Your task to perform on an android device: Add "razer naga" to the cart on amazon, then select checkout. Image 0: 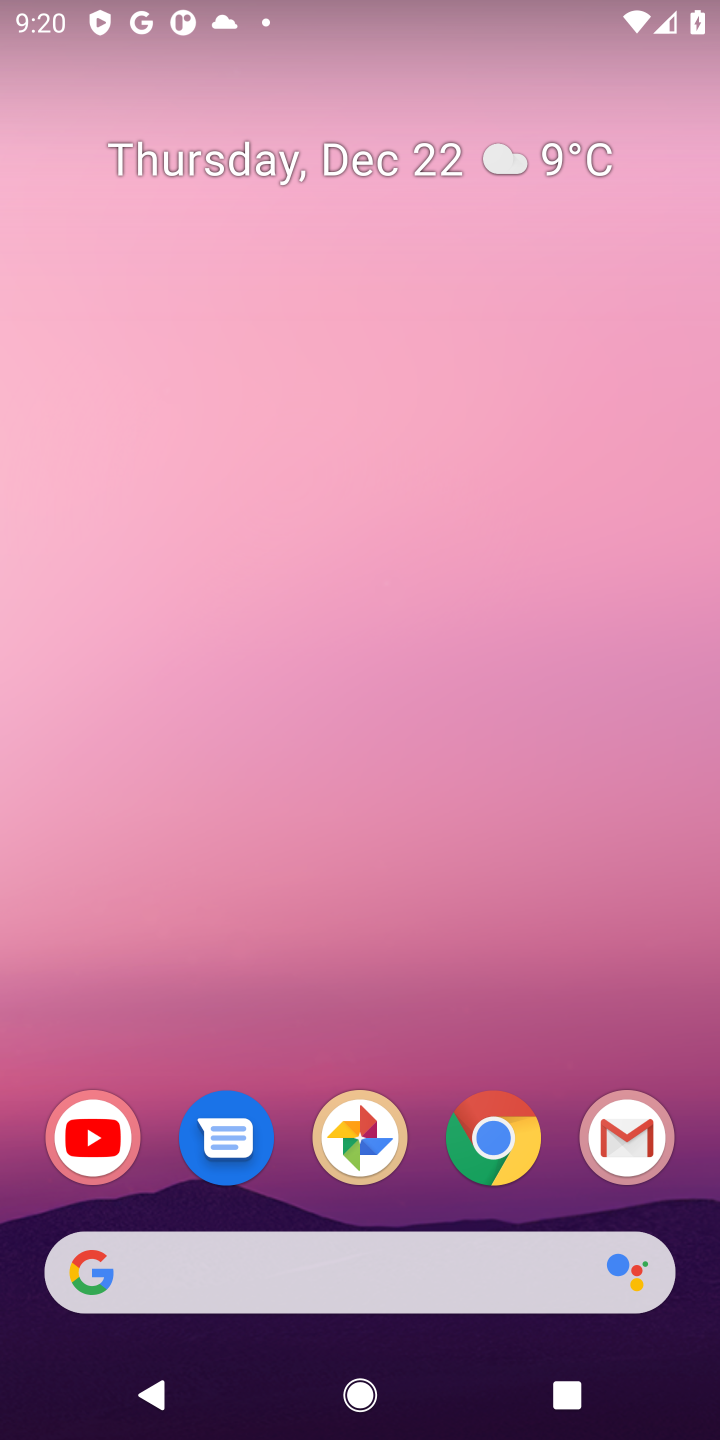
Step 0: click (507, 1147)
Your task to perform on an android device: Add "razer naga" to the cart on amazon, then select checkout. Image 1: 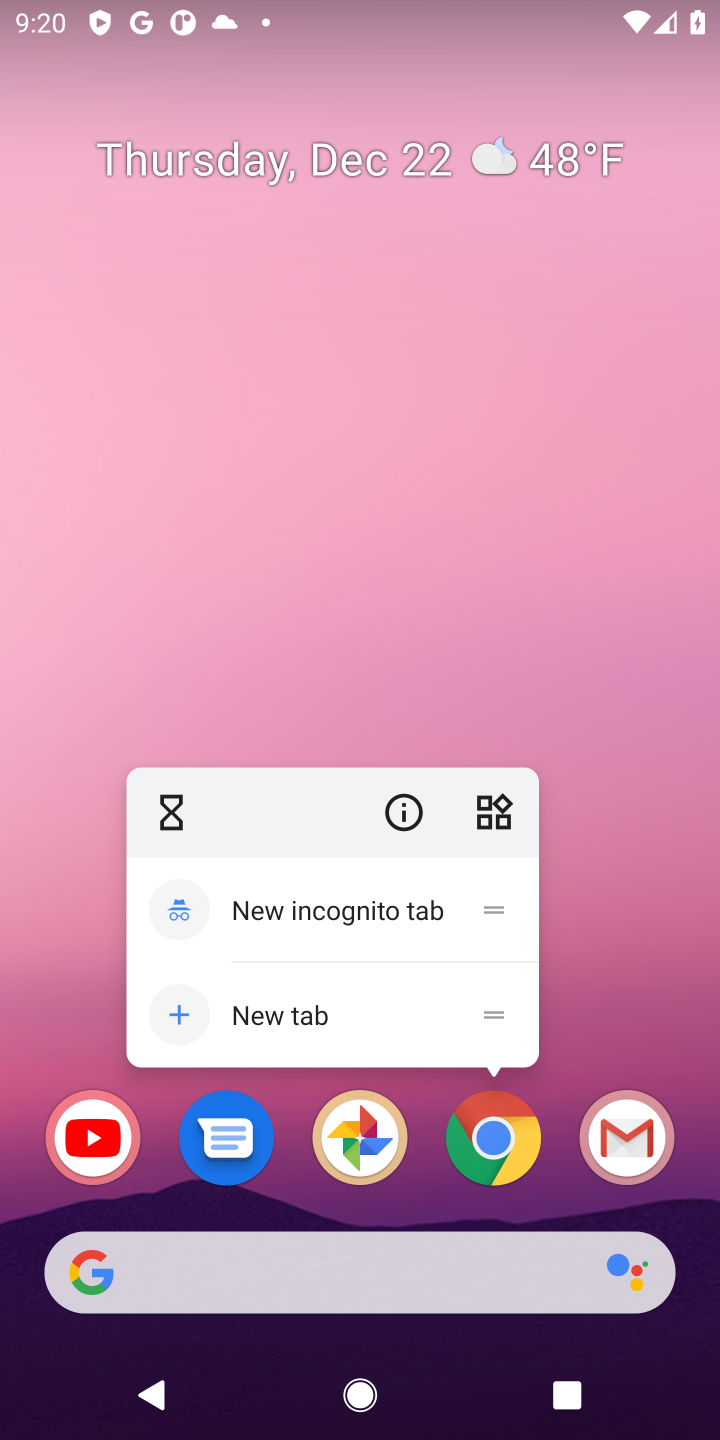
Step 1: click (507, 1147)
Your task to perform on an android device: Add "razer naga" to the cart on amazon, then select checkout. Image 2: 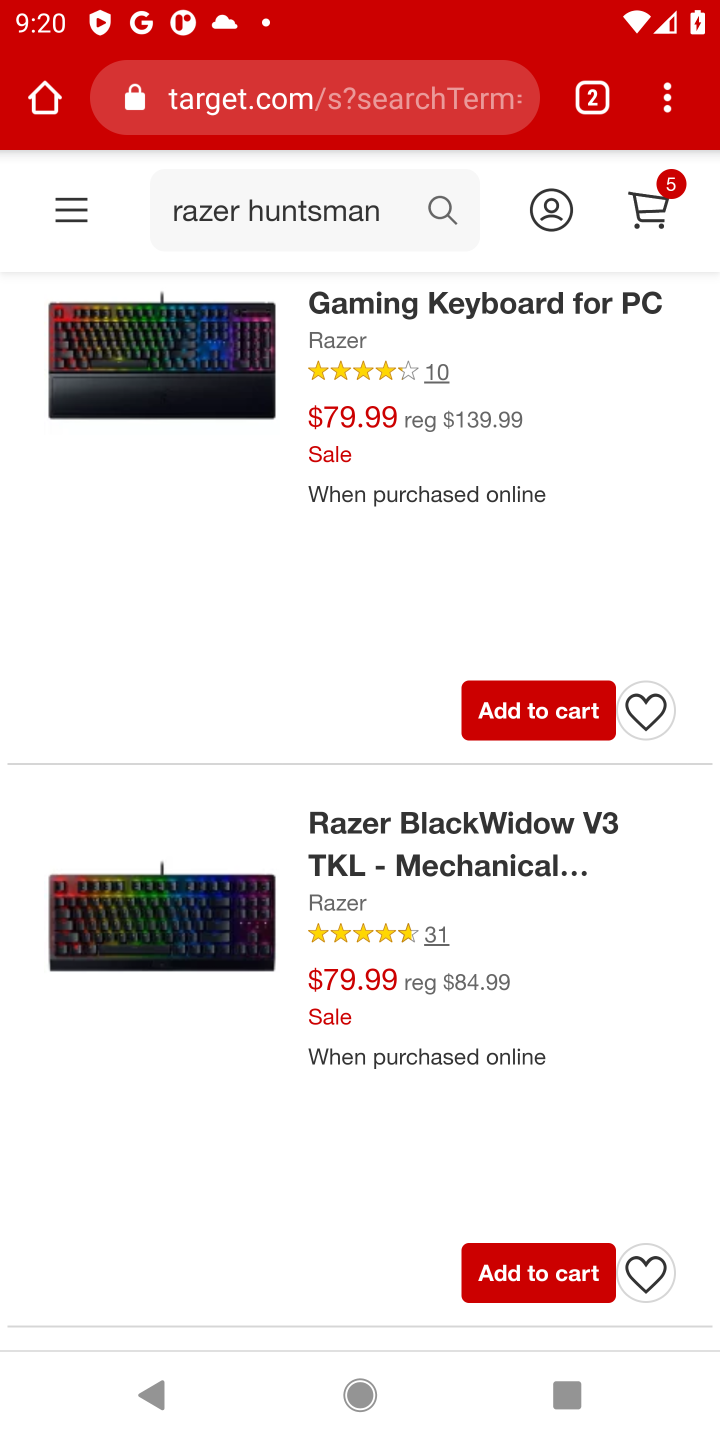
Step 2: click (194, 97)
Your task to perform on an android device: Add "razer naga" to the cart on amazon, then select checkout. Image 3: 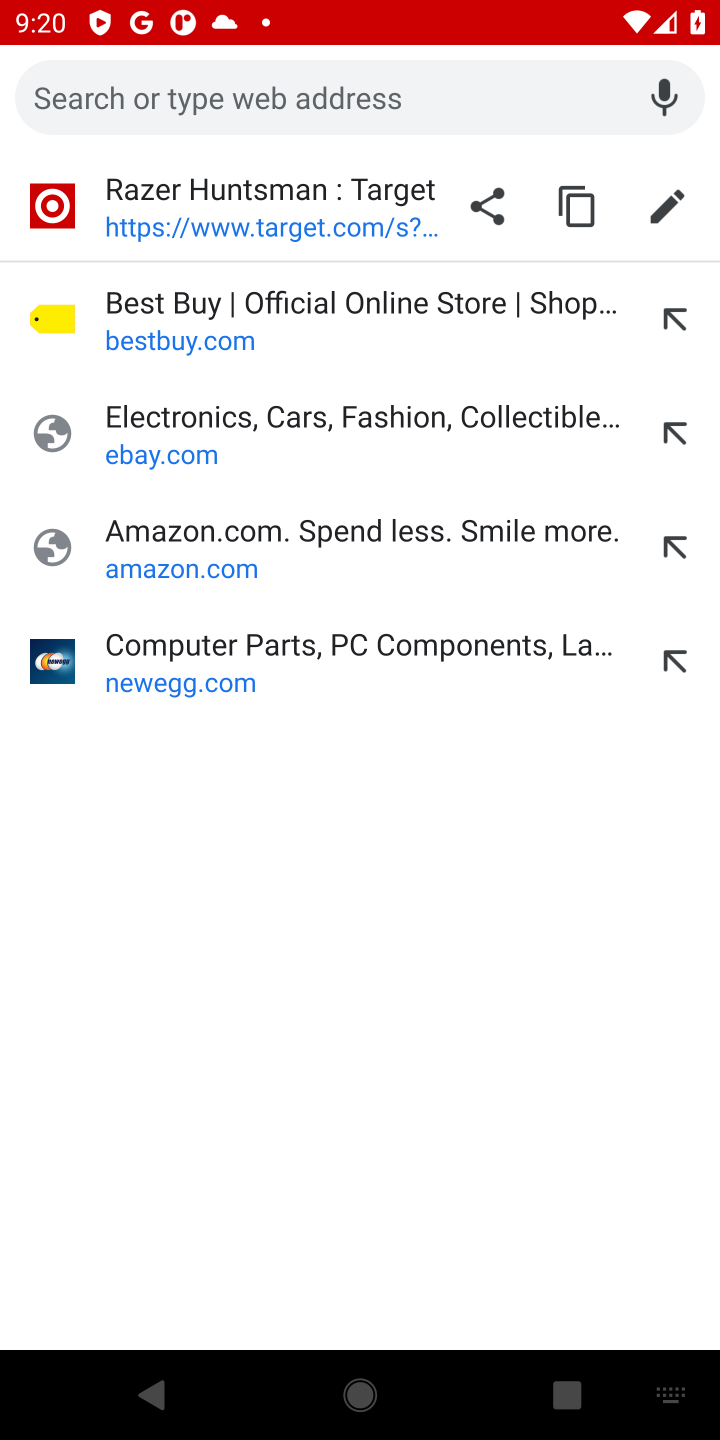
Step 3: type "amazon"
Your task to perform on an android device: Add "razer naga" to the cart on amazon, then select checkout. Image 4: 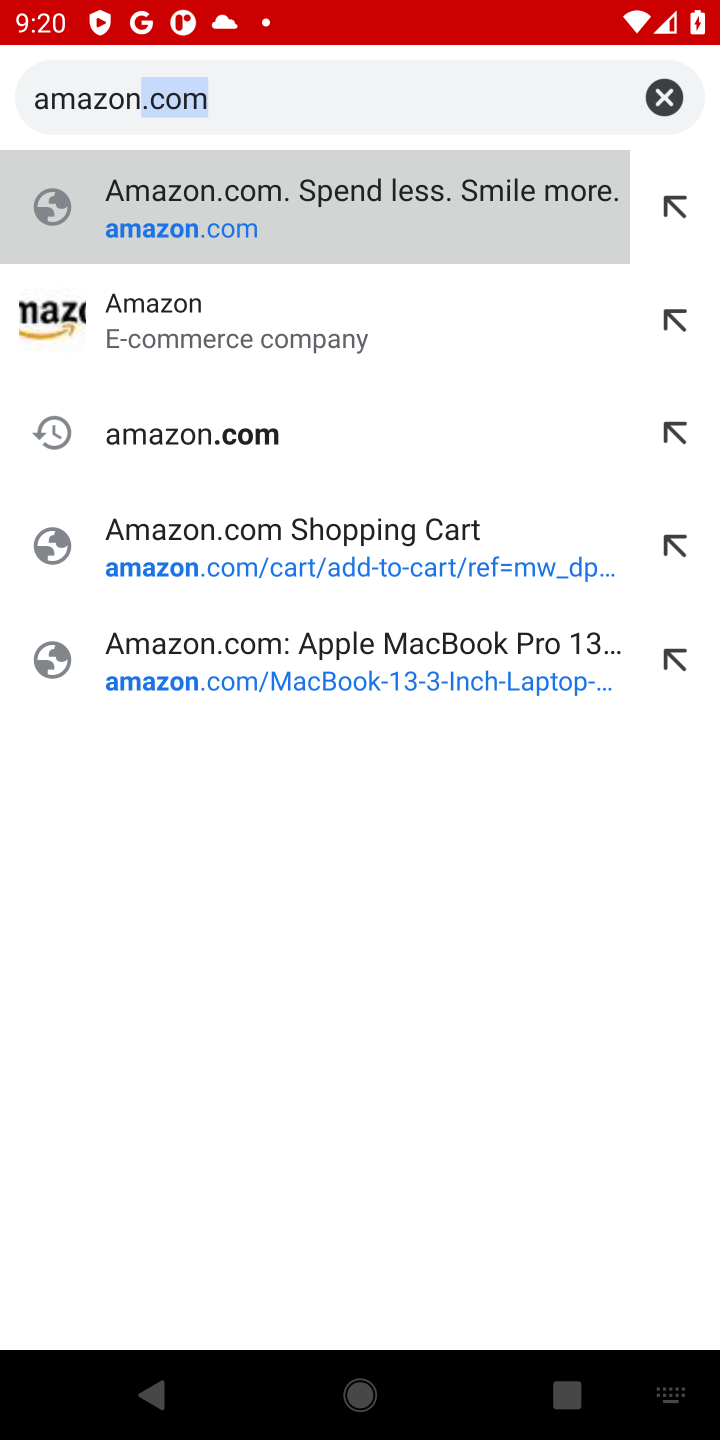
Step 4: click (193, 236)
Your task to perform on an android device: Add "razer naga" to the cart on amazon, then select checkout. Image 5: 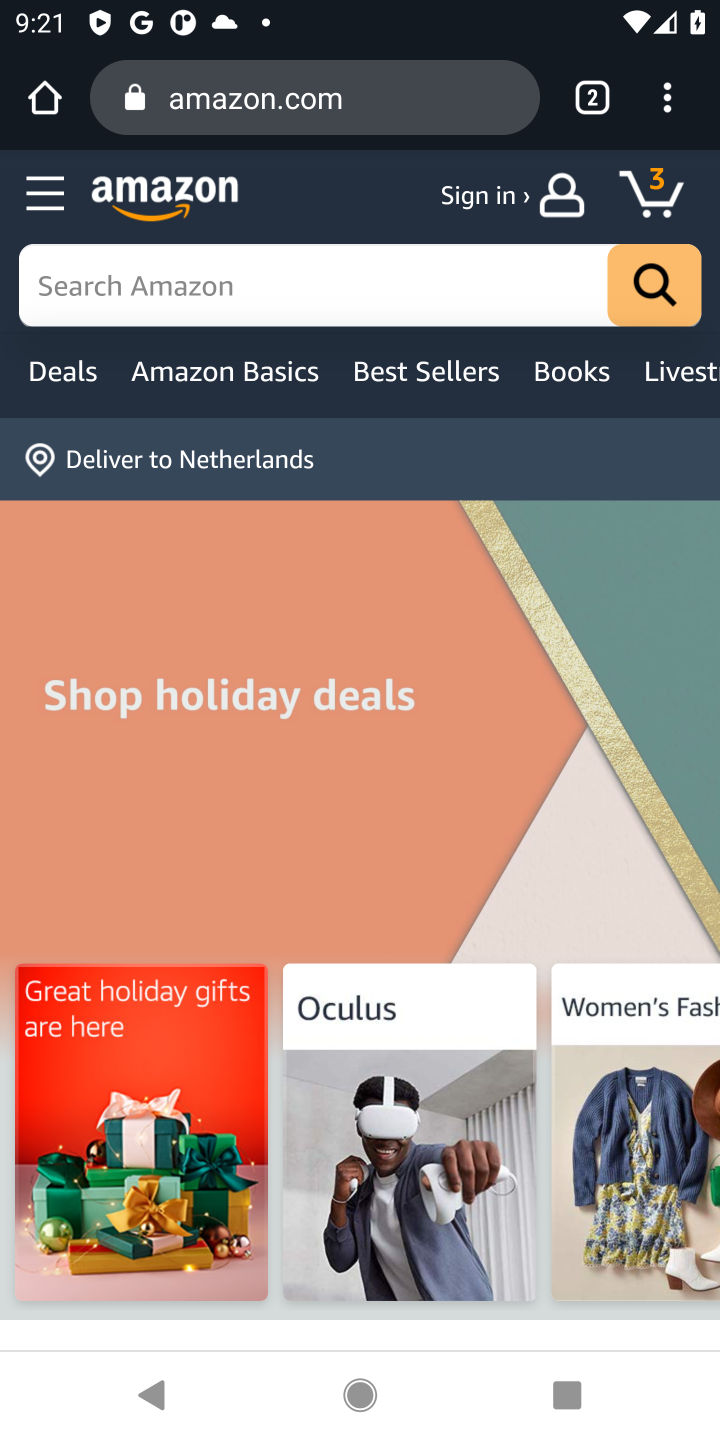
Step 5: click (213, 268)
Your task to perform on an android device: Add "razer naga" to the cart on amazon, then select checkout. Image 6: 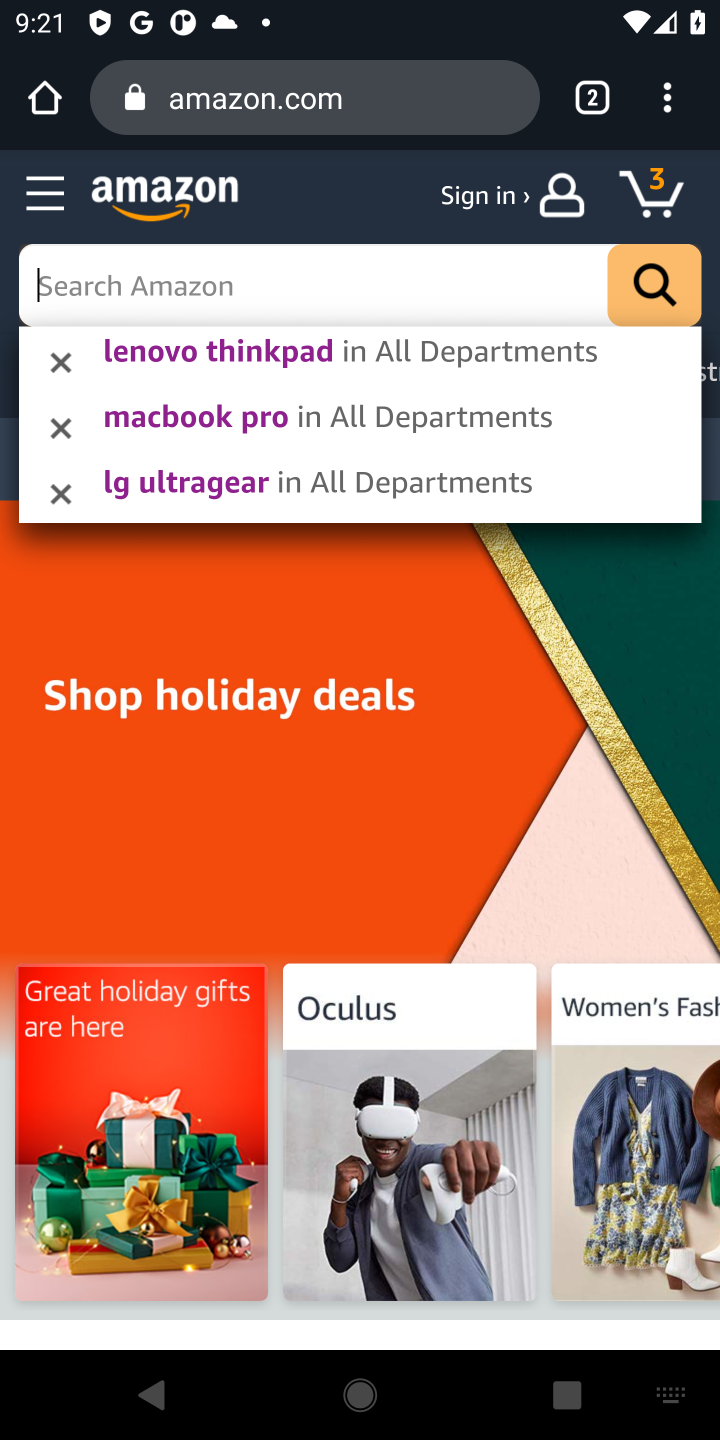
Step 6: type "razer naga"
Your task to perform on an android device: Add "razer naga" to the cart on amazon, then select checkout. Image 7: 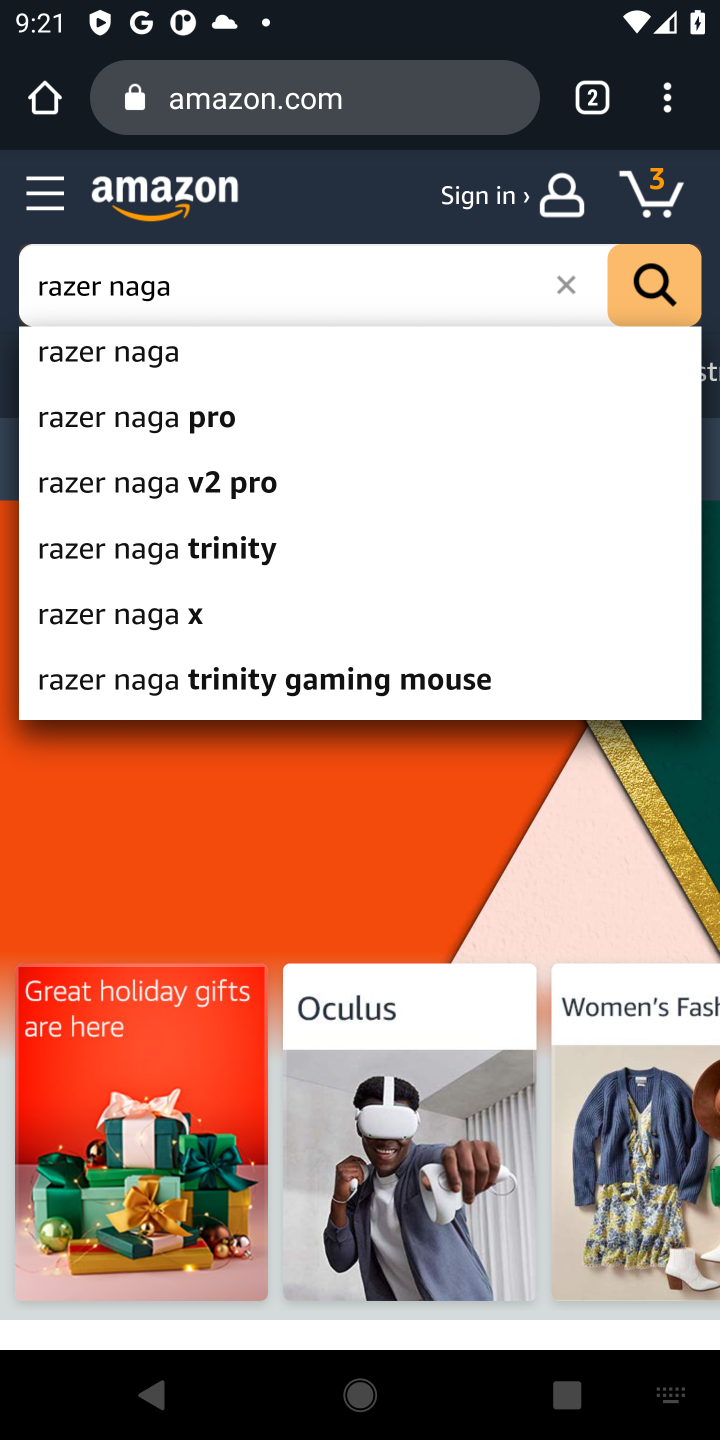
Step 7: press enter
Your task to perform on an android device: Add "razer naga" to the cart on amazon, then select checkout. Image 8: 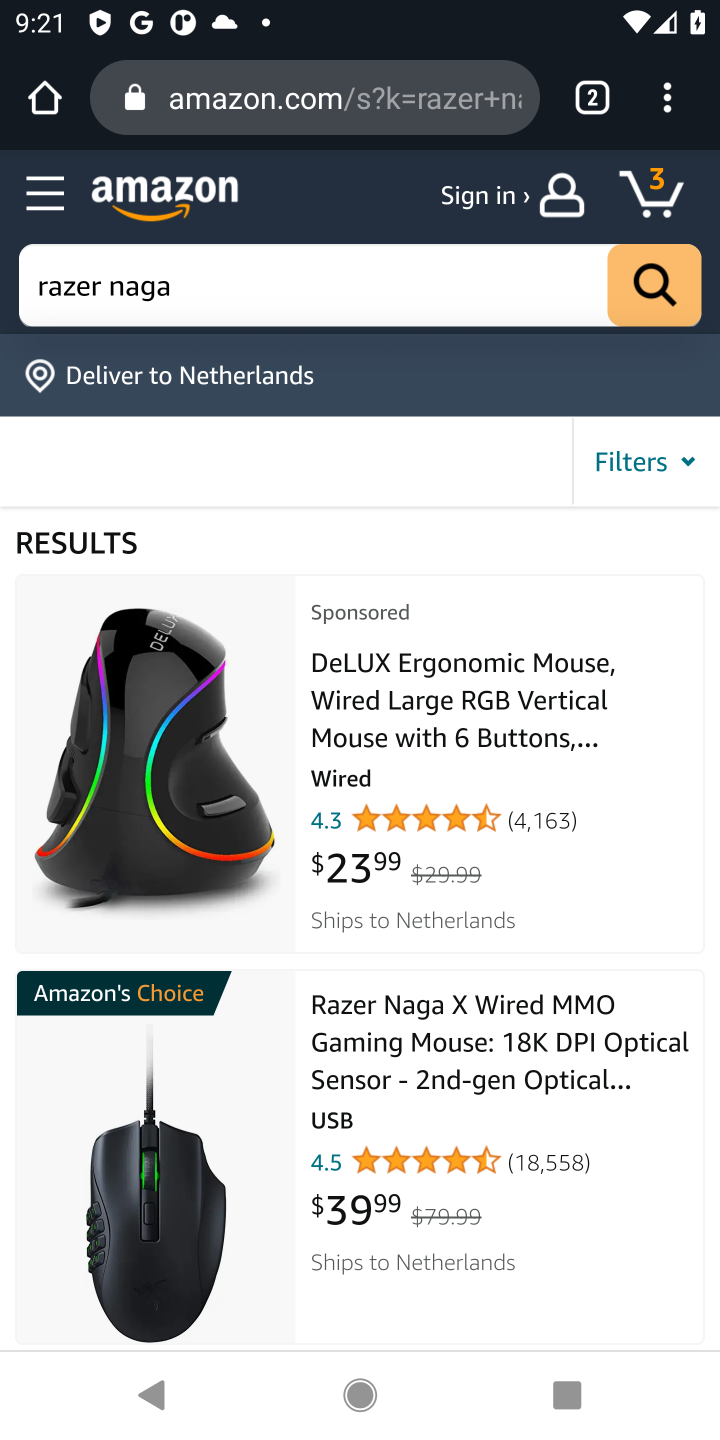
Step 8: click (465, 1033)
Your task to perform on an android device: Add "razer naga" to the cart on amazon, then select checkout. Image 9: 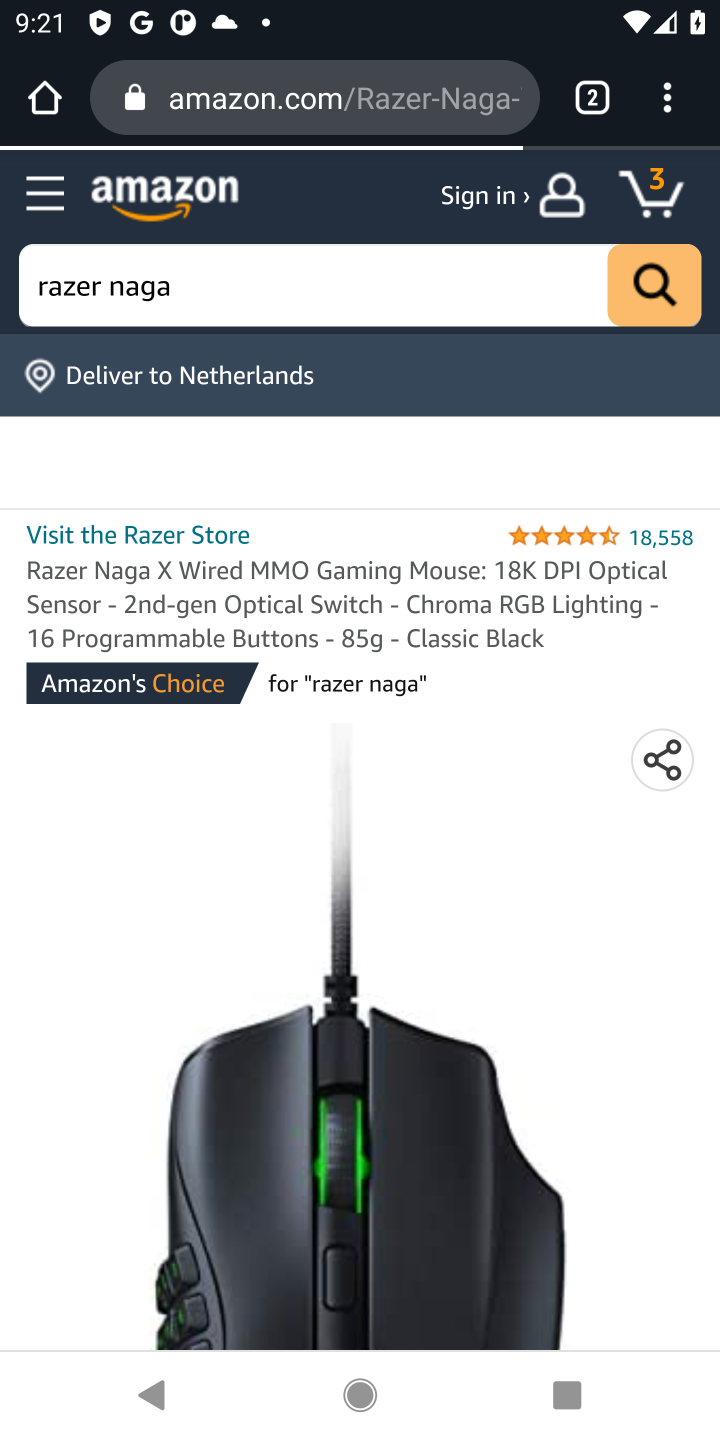
Step 9: drag from (609, 1086) to (581, 853)
Your task to perform on an android device: Add "razer naga" to the cart on amazon, then select checkout. Image 10: 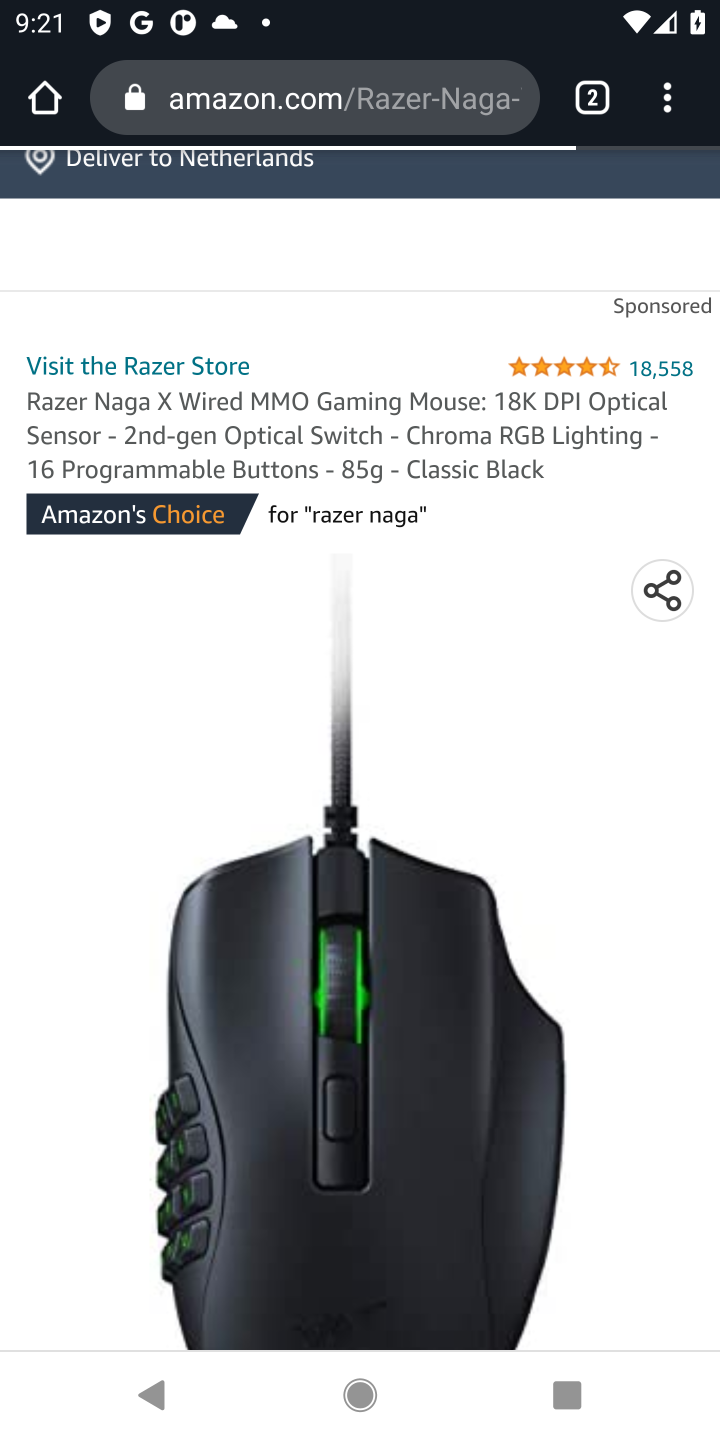
Step 10: drag from (702, 793) to (674, 584)
Your task to perform on an android device: Add "razer naga" to the cart on amazon, then select checkout. Image 11: 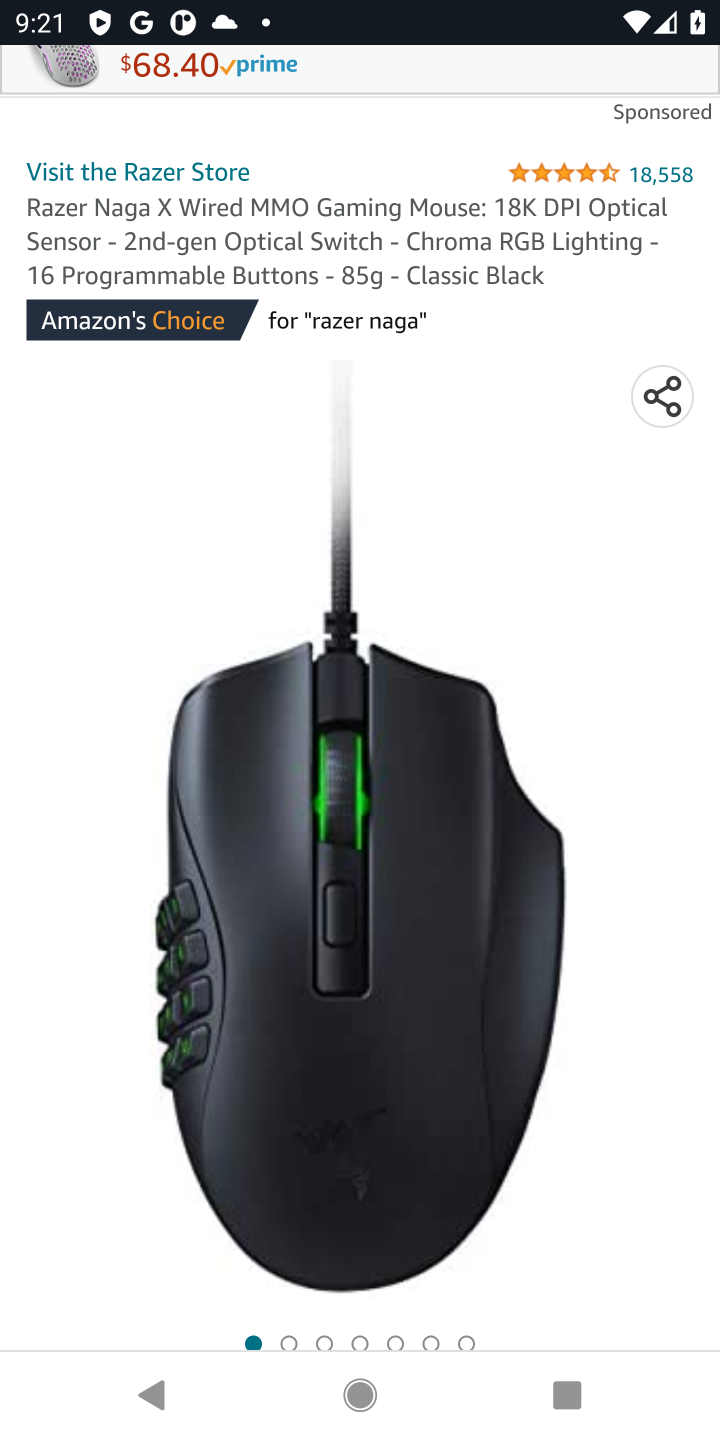
Step 11: drag from (626, 1235) to (678, 397)
Your task to perform on an android device: Add "razer naga" to the cart on amazon, then select checkout. Image 12: 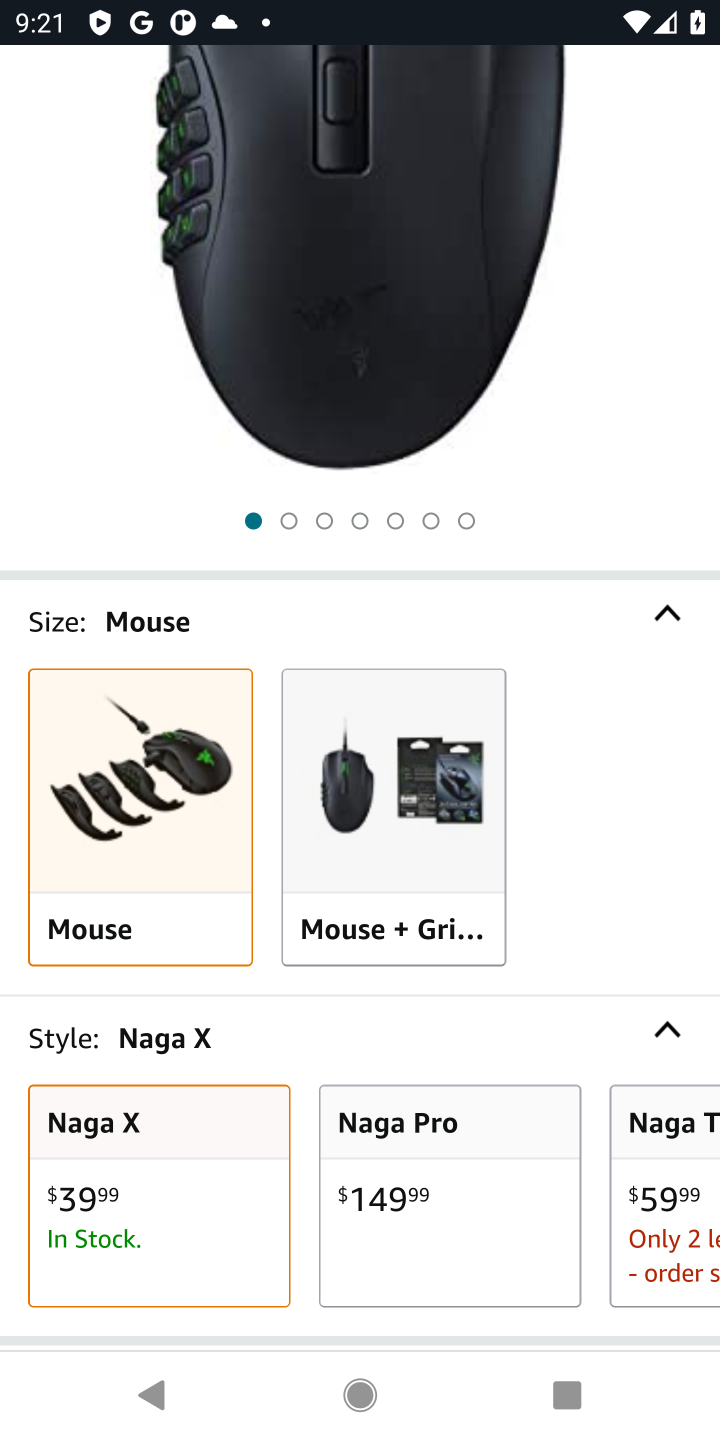
Step 12: drag from (477, 1081) to (568, 505)
Your task to perform on an android device: Add "razer naga" to the cart on amazon, then select checkout. Image 13: 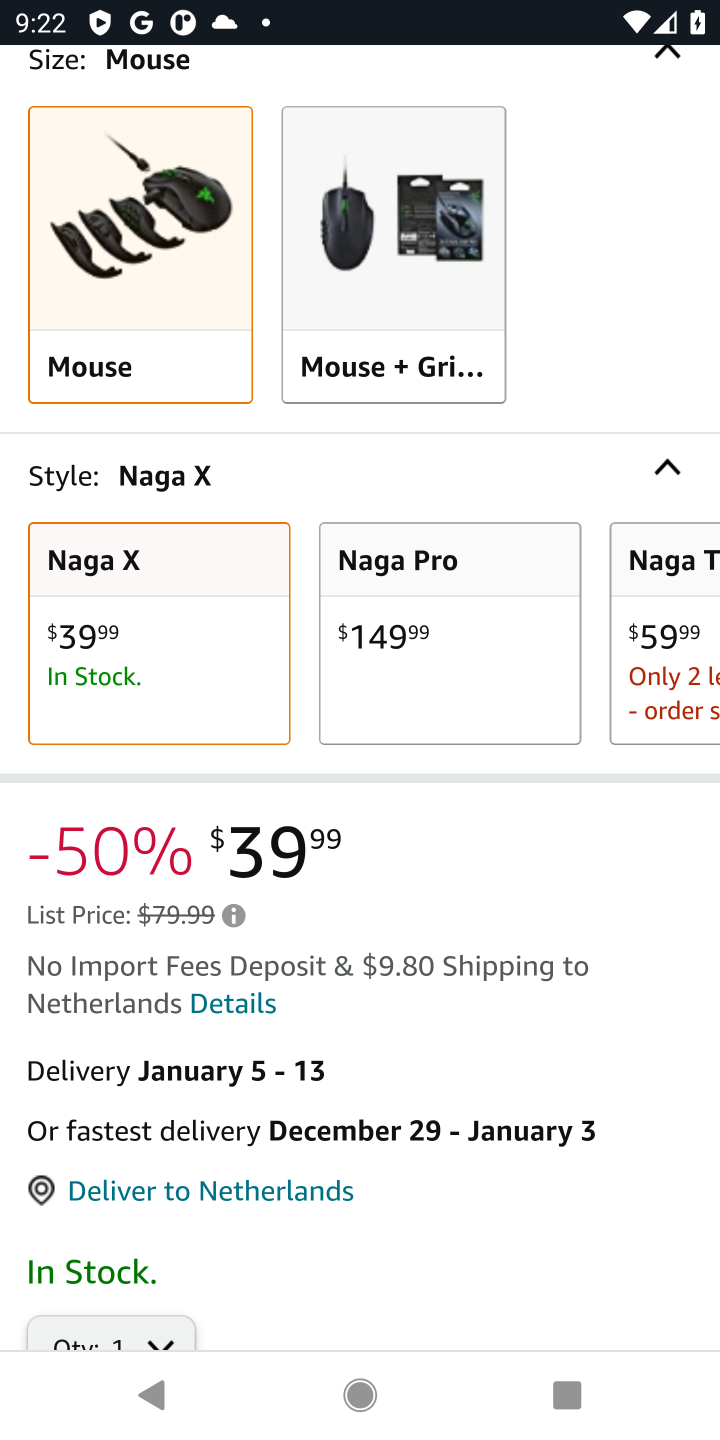
Step 13: drag from (489, 1004) to (600, 452)
Your task to perform on an android device: Add "razer naga" to the cart on amazon, then select checkout. Image 14: 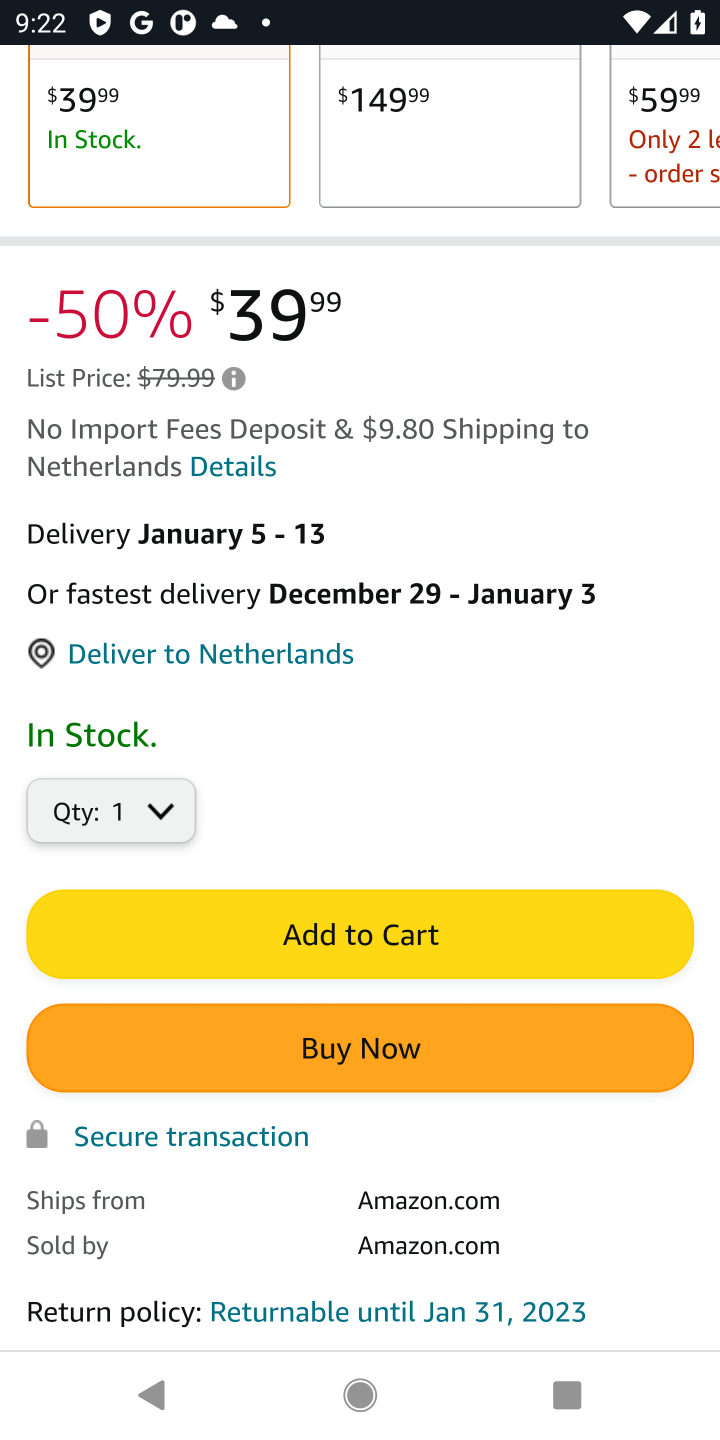
Step 14: click (470, 940)
Your task to perform on an android device: Add "razer naga" to the cart on amazon, then select checkout. Image 15: 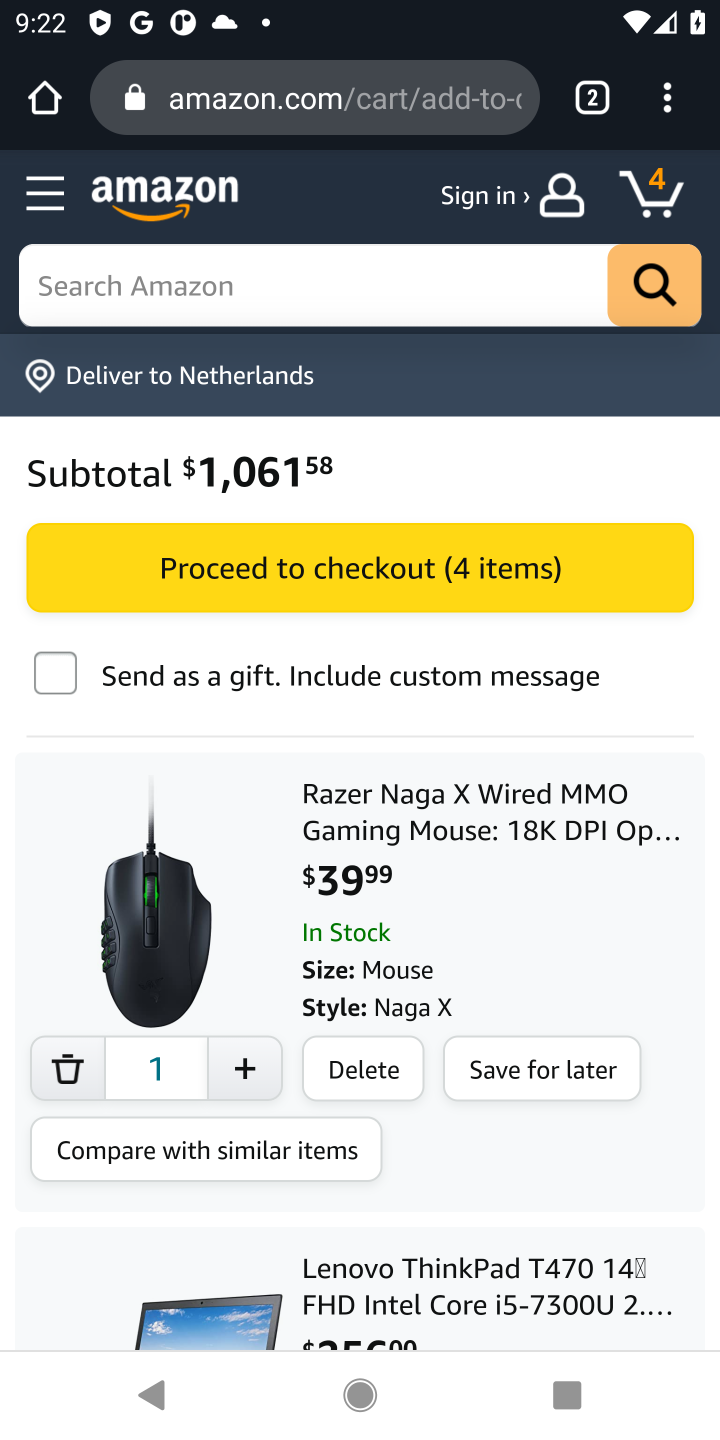
Step 15: click (530, 567)
Your task to perform on an android device: Add "razer naga" to the cart on amazon, then select checkout. Image 16: 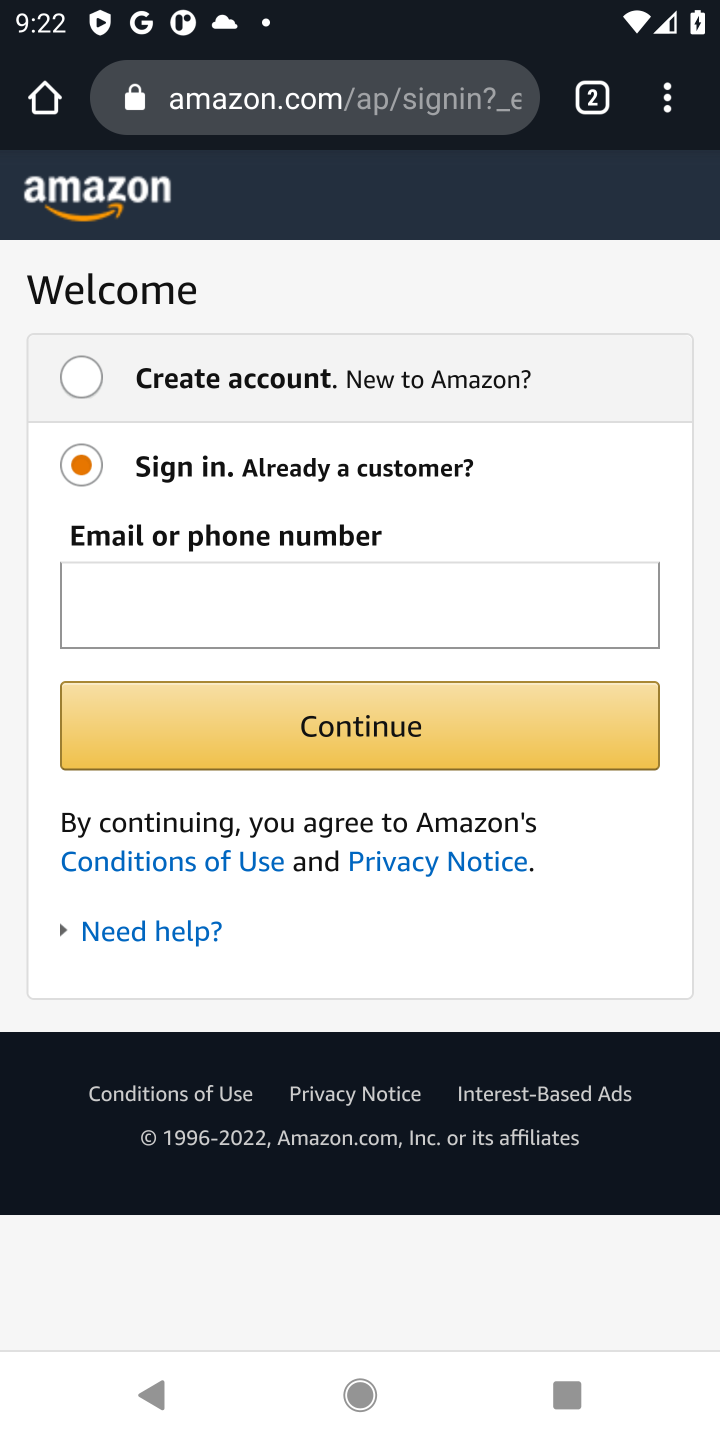
Step 16: task complete